Your task to perform on an android device: see sites visited before in the chrome app Image 0: 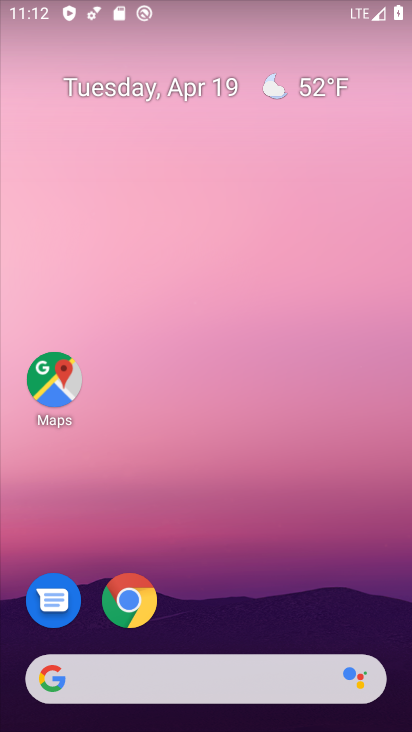
Step 0: click (146, 610)
Your task to perform on an android device: see sites visited before in the chrome app Image 1: 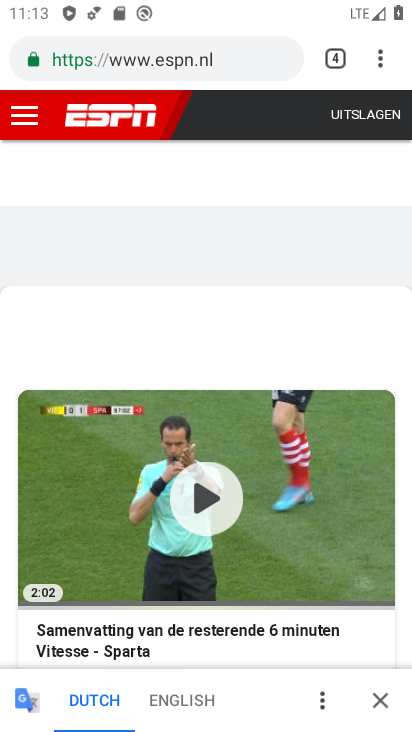
Step 1: click (376, 61)
Your task to perform on an android device: see sites visited before in the chrome app Image 2: 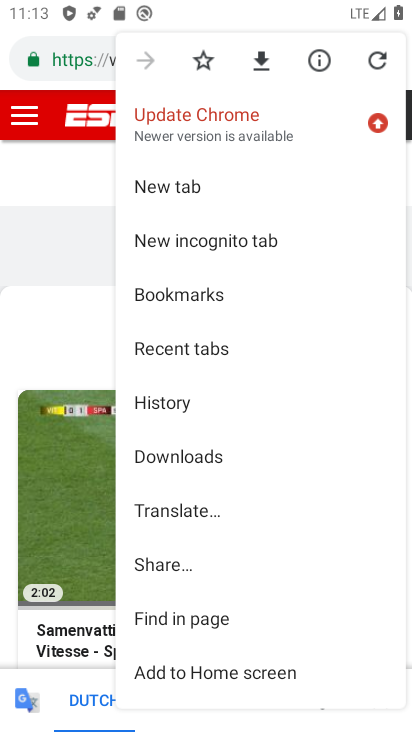
Step 2: click (213, 418)
Your task to perform on an android device: see sites visited before in the chrome app Image 3: 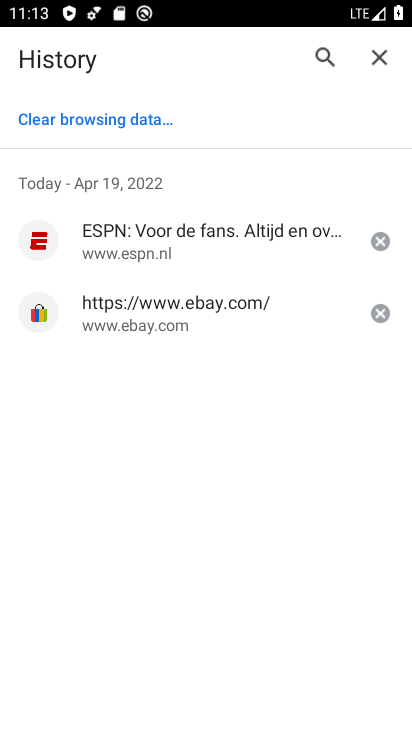
Step 3: task complete